Your task to perform on an android device: Open calendar and show me the third week of next month Image 0: 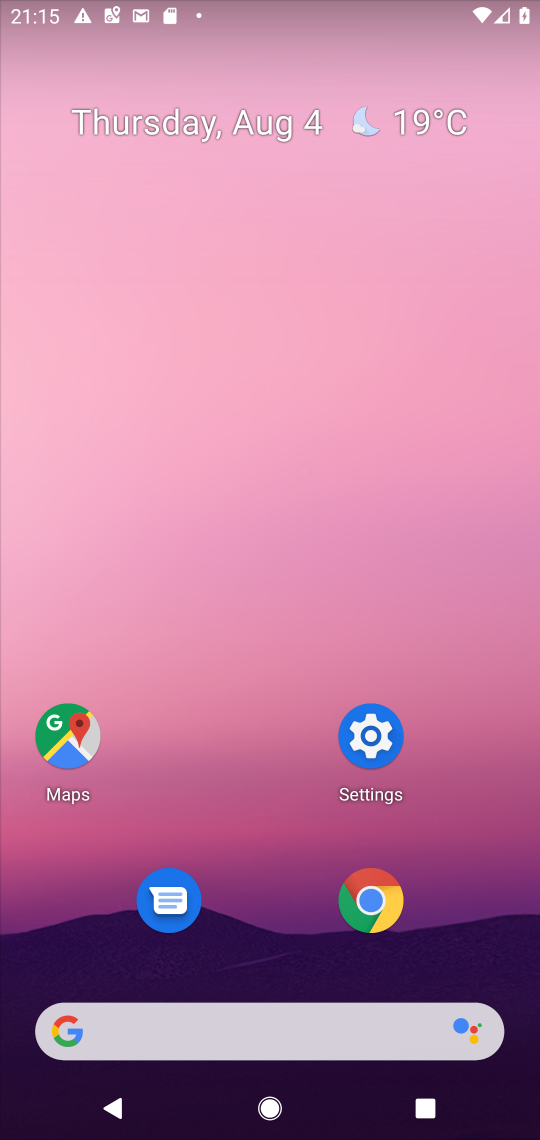
Step 0: drag from (189, 1030) to (399, 118)
Your task to perform on an android device: Open calendar and show me the third week of next month Image 1: 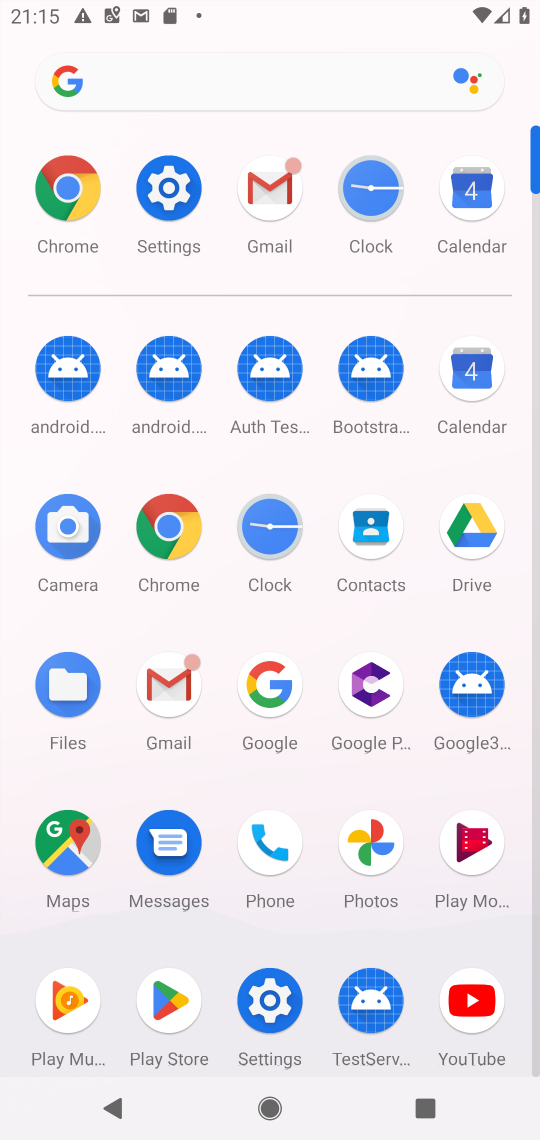
Step 1: click (468, 189)
Your task to perform on an android device: Open calendar and show me the third week of next month Image 2: 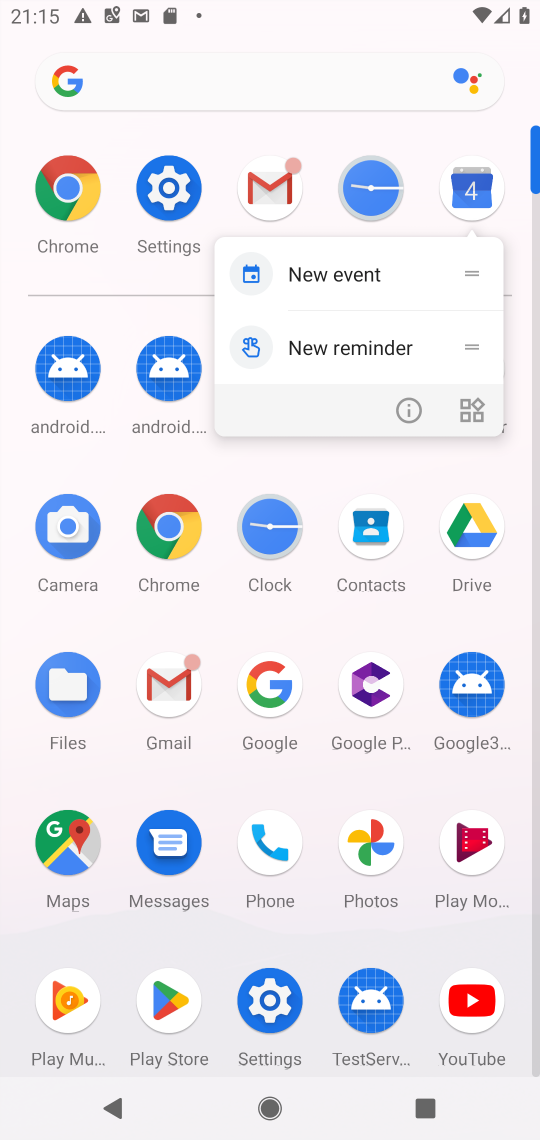
Step 2: click (478, 197)
Your task to perform on an android device: Open calendar and show me the third week of next month Image 3: 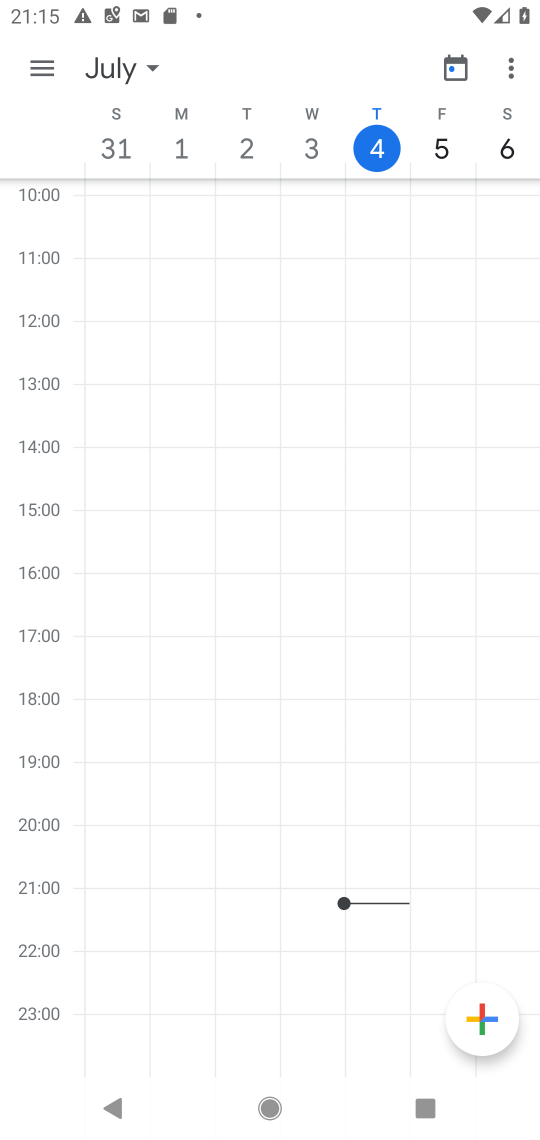
Step 3: click (111, 67)
Your task to perform on an android device: Open calendar and show me the third week of next month Image 4: 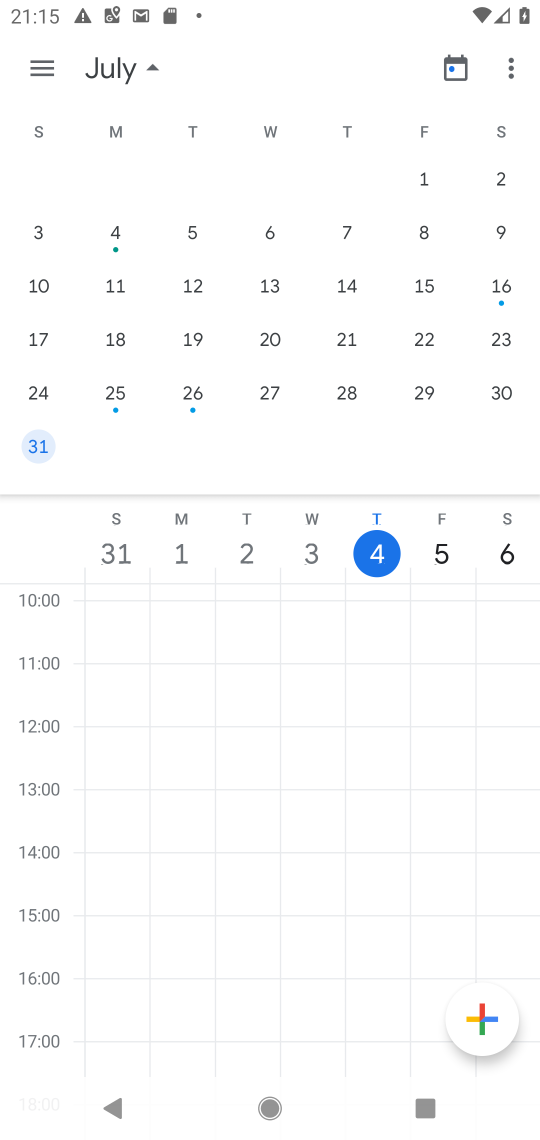
Step 4: drag from (433, 322) to (38, 385)
Your task to perform on an android device: Open calendar and show me the third week of next month Image 5: 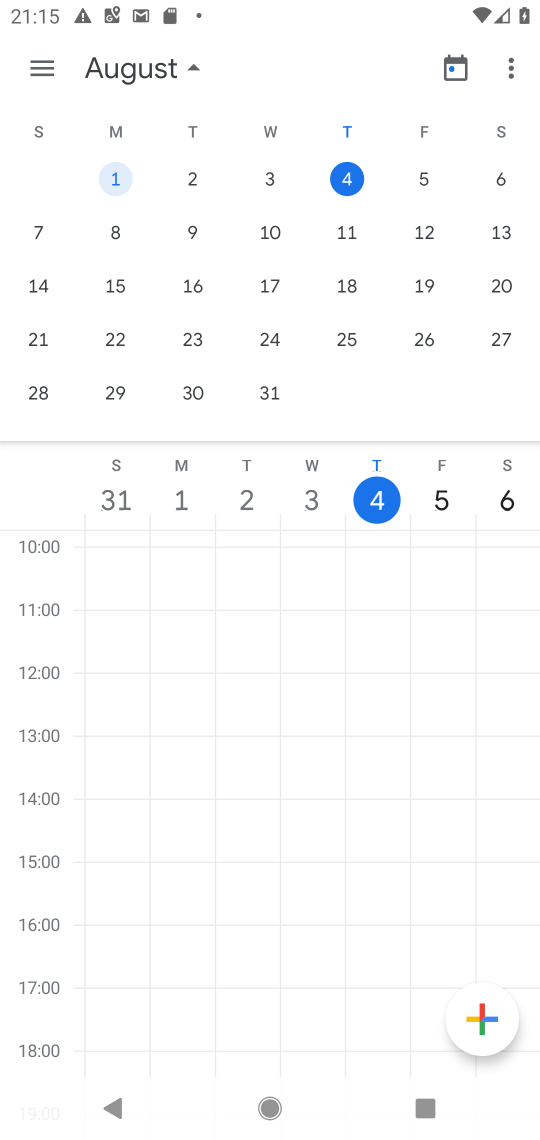
Step 5: drag from (451, 366) to (8, 439)
Your task to perform on an android device: Open calendar and show me the third week of next month Image 6: 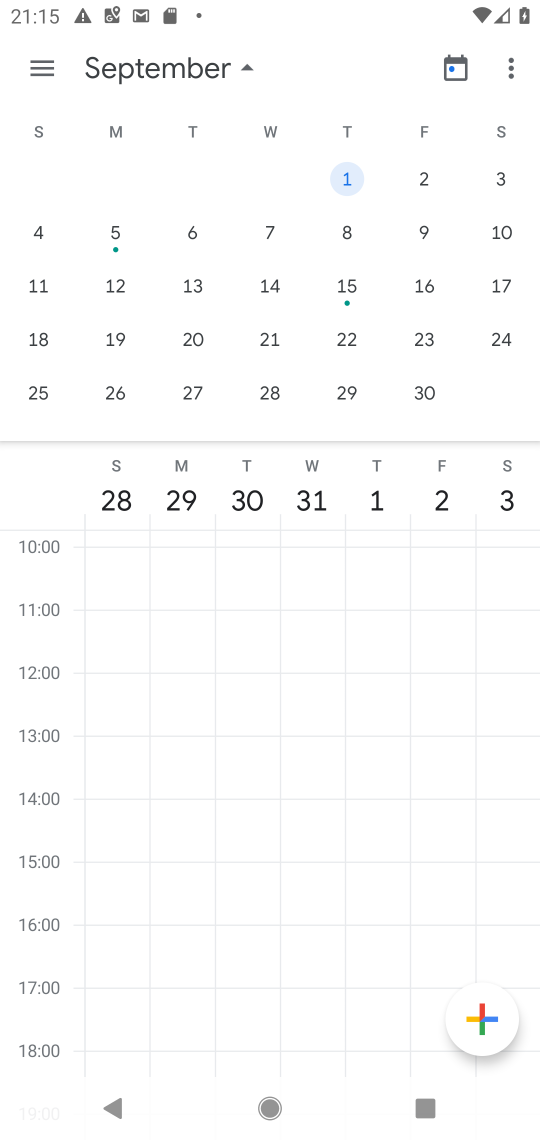
Step 6: click (34, 285)
Your task to perform on an android device: Open calendar and show me the third week of next month Image 7: 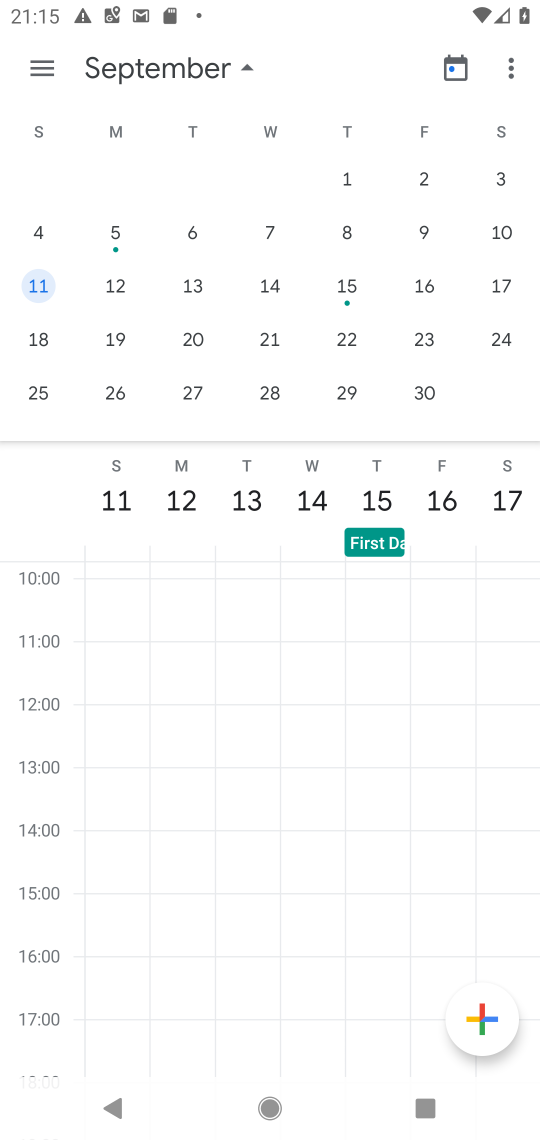
Step 7: click (38, 61)
Your task to perform on an android device: Open calendar and show me the third week of next month Image 8: 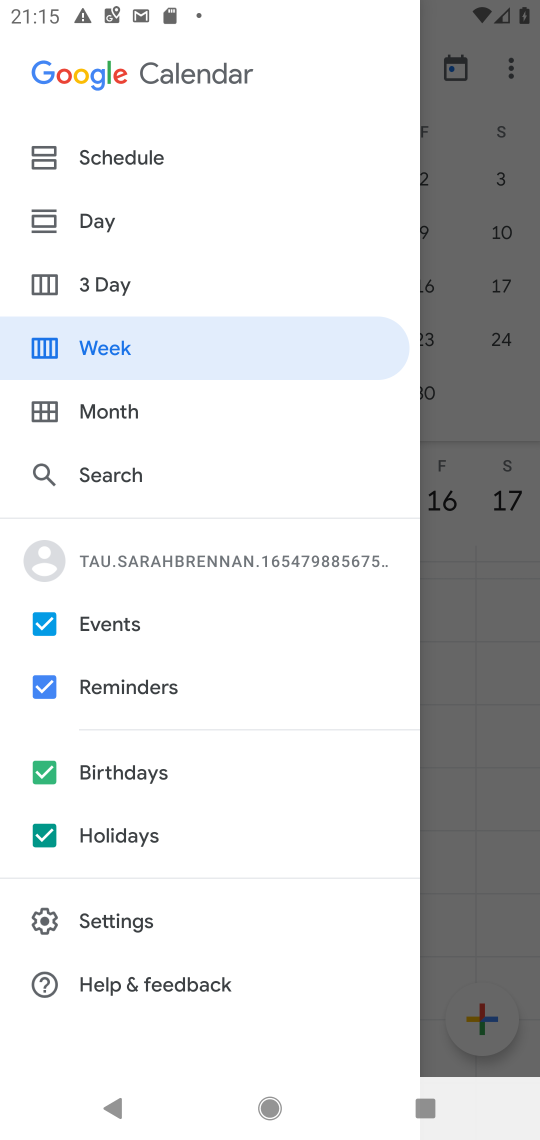
Step 8: click (108, 351)
Your task to perform on an android device: Open calendar and show me the third week of next month Image 9: 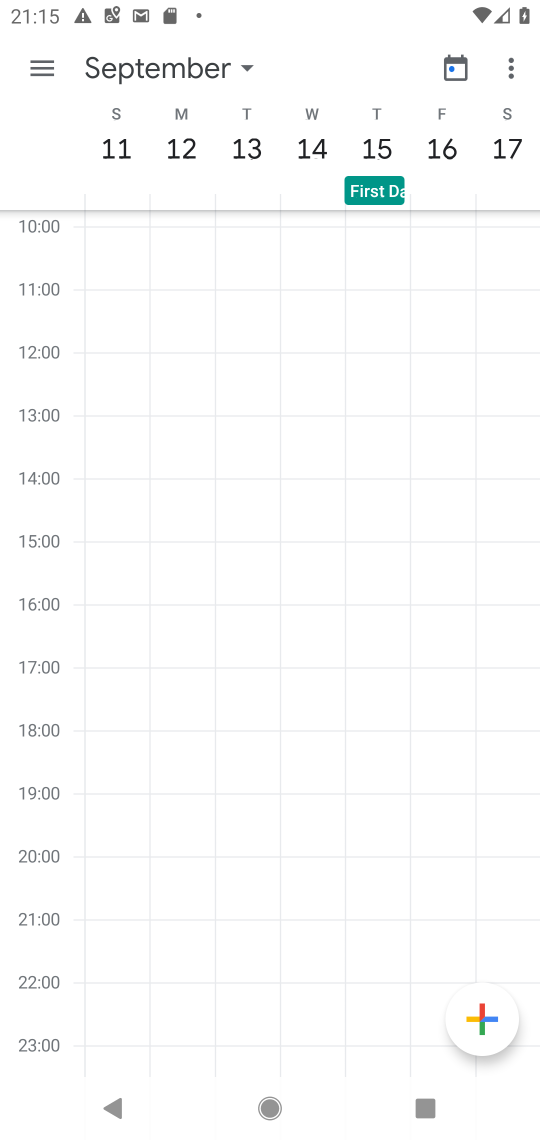
Step 9: task complete